Your task to perform on an android device: Show me recent news Image 0: 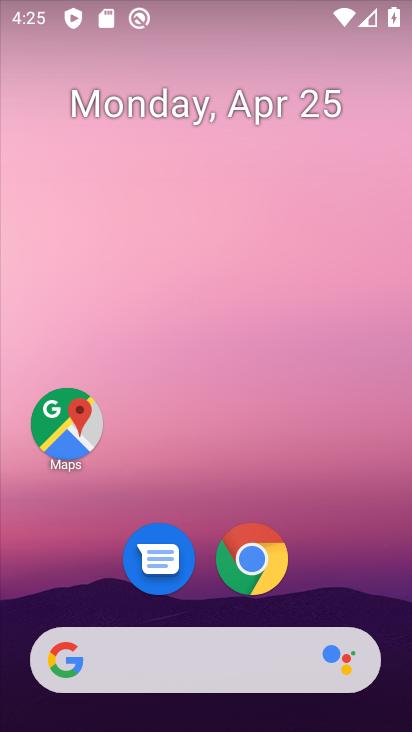
Step 0: click (130, 674)
Your task to perform on an android device: Show me recent news Image 1: 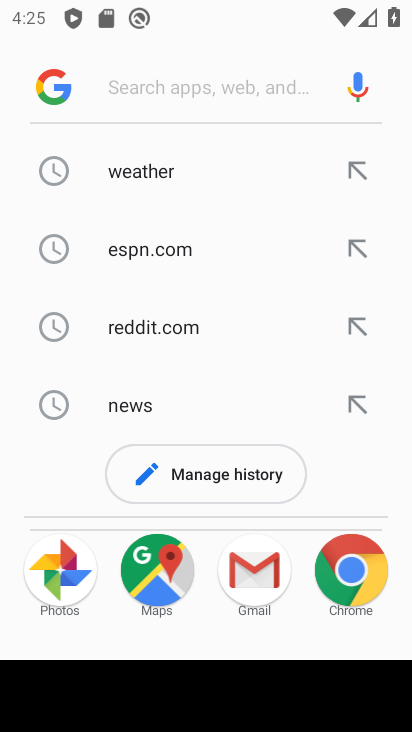
Step 1: click (52, 74)
Your task to perform on an android device: Show me recent news Image 2: 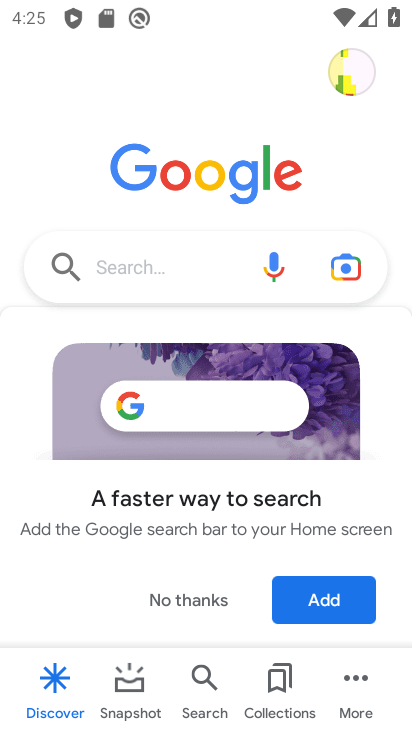
Step 2: task complete